Your task to perform on an android device: Go to Android settings Image 0: 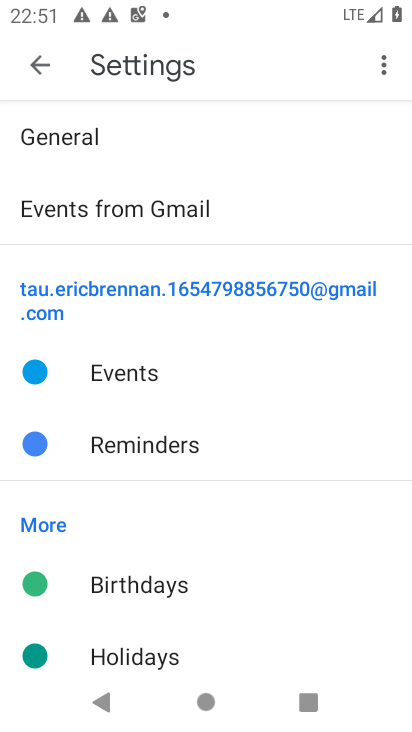
Step 0: press home button
Your task to perform on an android device: Go to Android settings Image 1: 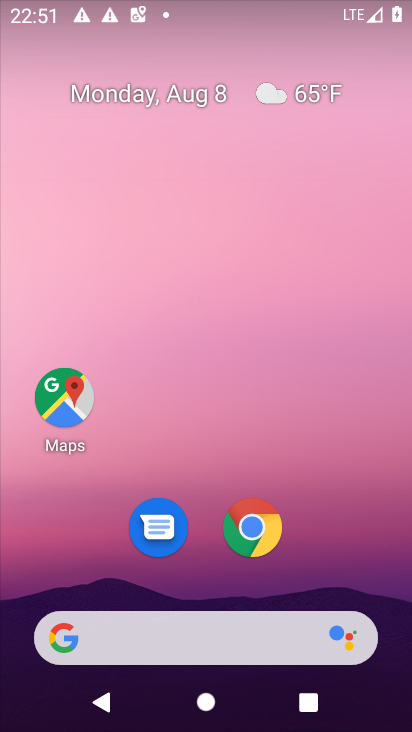
Step 1: drag from (396, 683) to (409, 196)
Your task to perform on an android device: Go to Android settings Image 2: 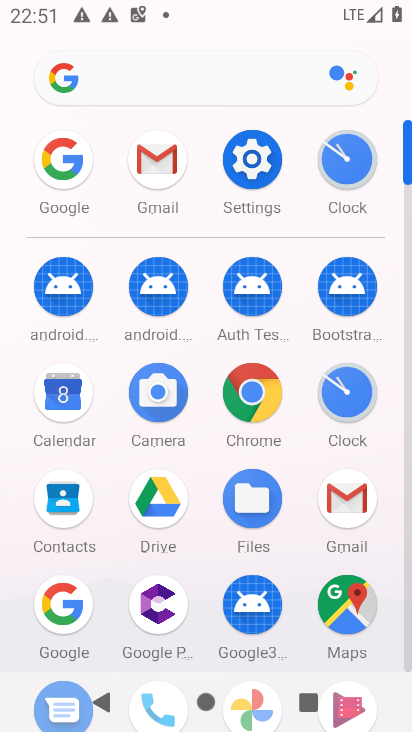
Step 2: click (251, 167)
Your task to perform on an android device: Go to Android settings Image 3: 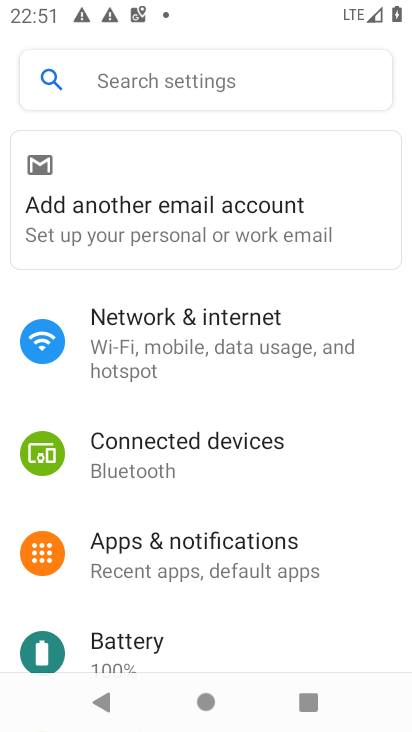
Step 3: task complete